Your task to perform on an android device: Go to sound settings Image 0: 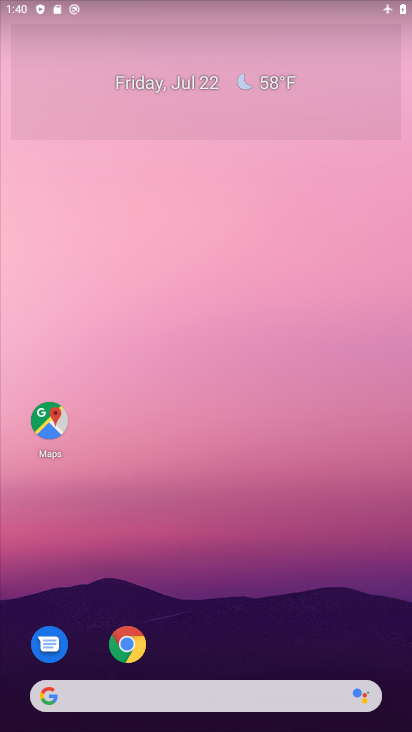
Step 0: drag from (236, 702) to (334, 236)
Your task to perform on an android device: Go to sound settings Image 1: 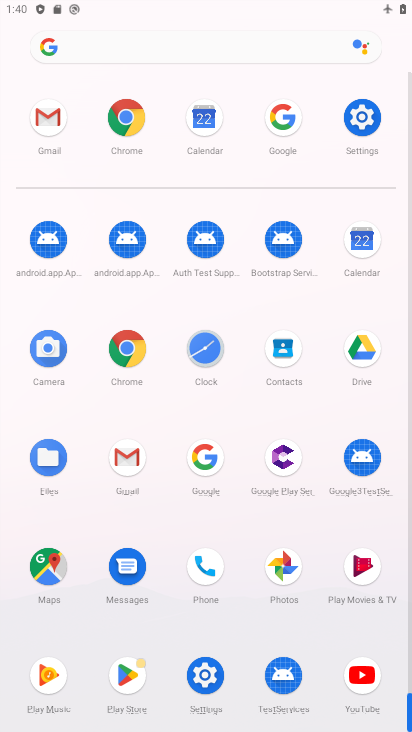
Step 1: click (379, 106)
Your task to perform on an android device: Go to sound settings Image 2: 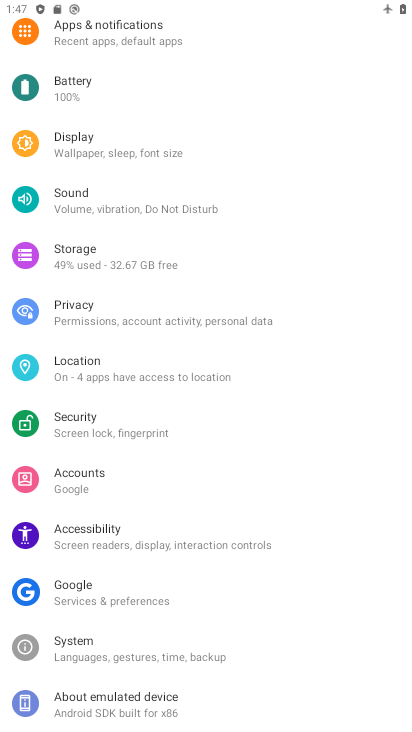
Step 2: click (163, 201)
Your task to perform on an android device: Go to sound settings Image 3: 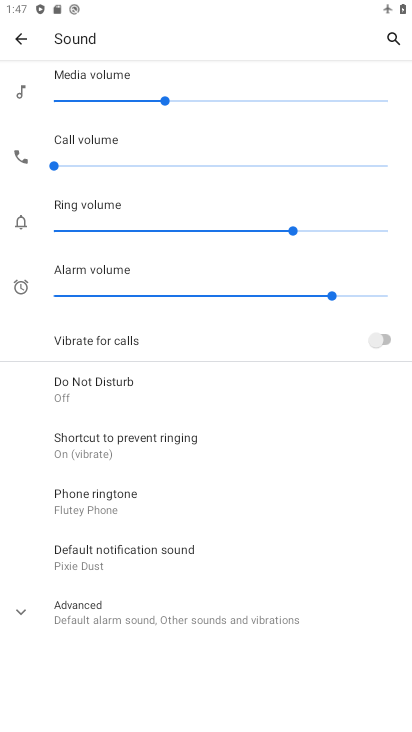
Step 3: task complete